Your task to perform on an android device: Go to wifi settings Image 0: 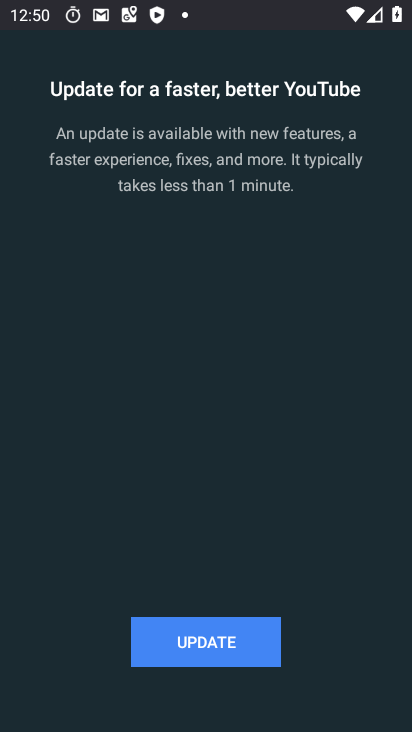
Step 0: press home button
Your task to perform on an android device: Go to wifi settings Image 1: 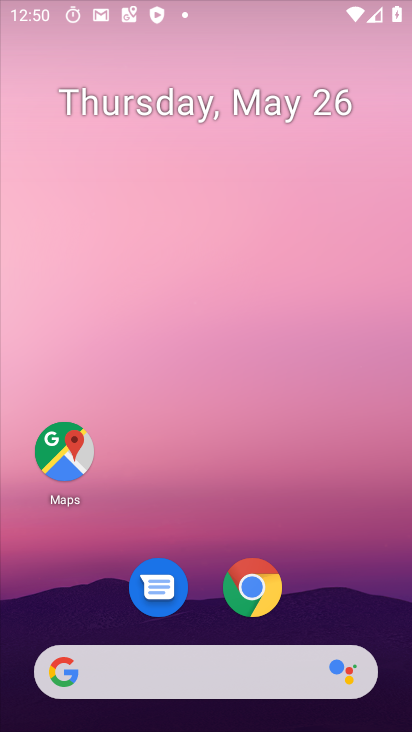
Step 1: drag from (276, 682) to (260, 172)
Your task to perform on an android device: Go to wifi settings Image 2: 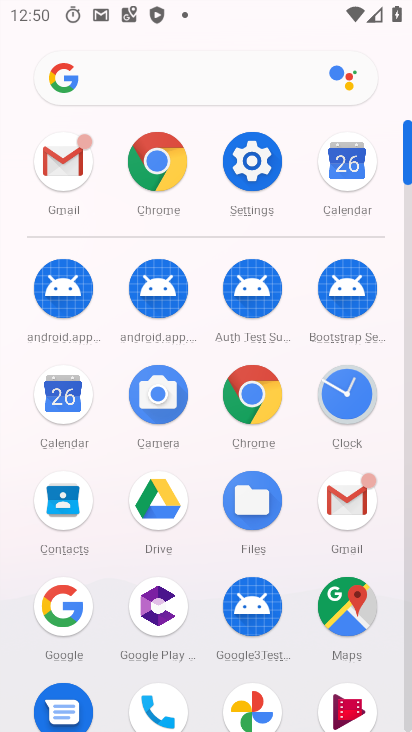
Step 2: click (245, 136)
Your task to perform on an android device: Go to wifi settings Image 3: 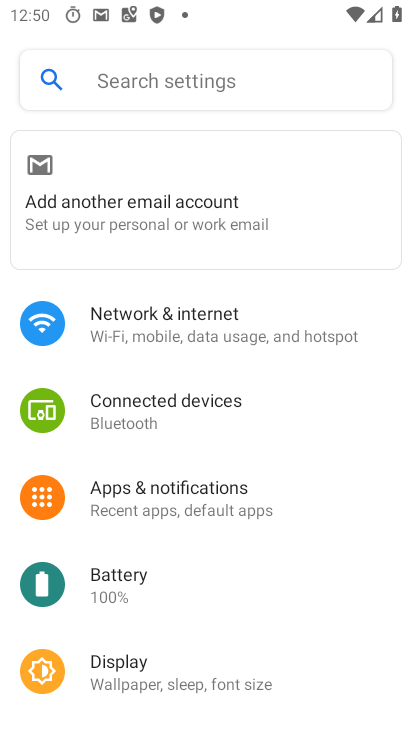
Step 3: click (188, 187)
Your task to perform on an android device: Go to wifi settings Image 4: 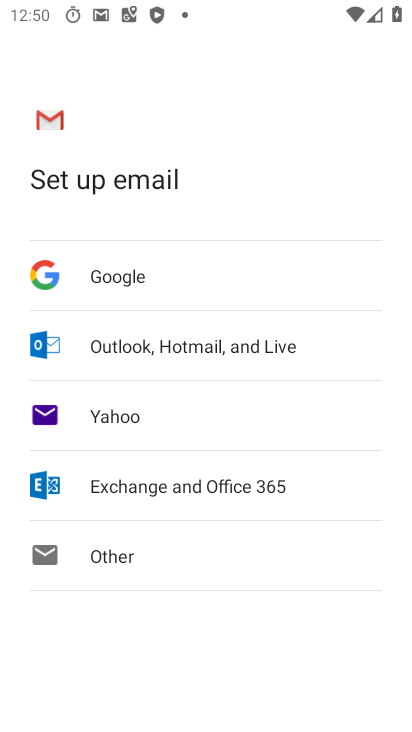
Step 4: press home button
Your task to perform on an android device: Go to wifi settings Image 5: 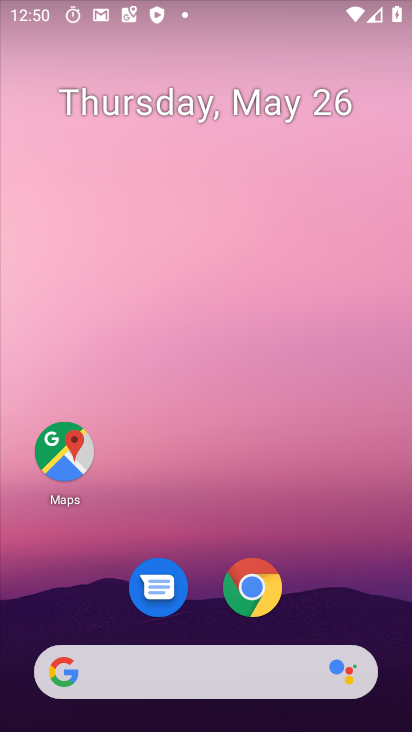
Step 5: drag from (288, 670) to (313, 119)
Your task to perform on an android device: Go to wifi settings Image 6: 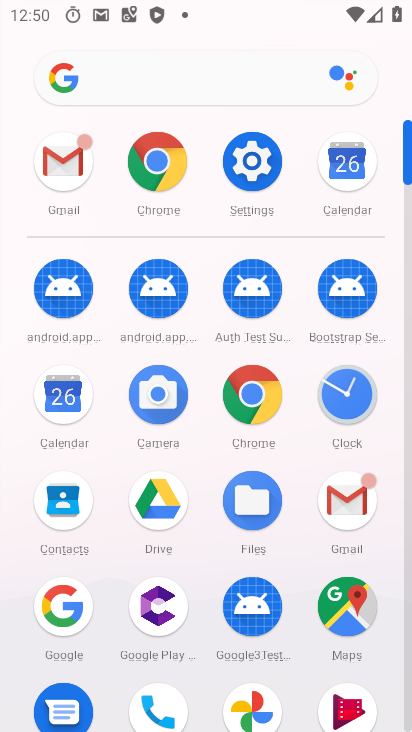
Step 6: click (250, 149)
Your task to perform on an android device: Go to wifi settings Image 7: 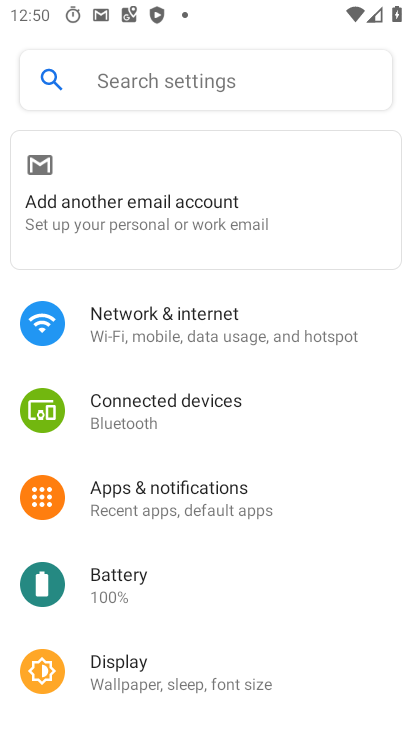
Step 7: click (178, 319)
Your task to perform on an android device: Go to wifi settings Image 8: 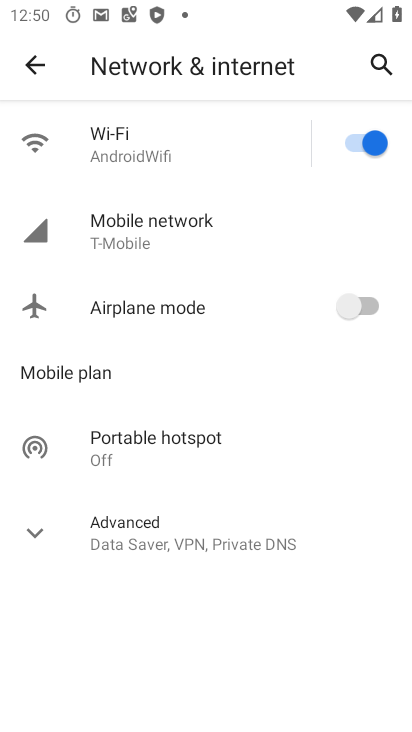
Step 8: click (143, 146)
Your task to perform on an android device: Go to wifi settings Image 9: 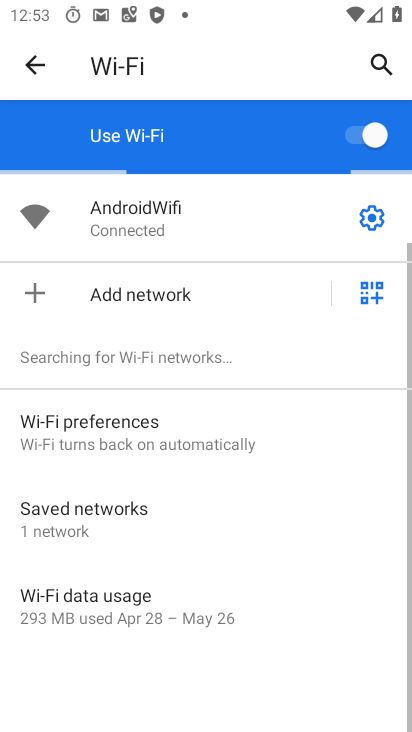
Step 9: task complete